Your task to perform on an android device: uninstall "NewsBreak: Local News & Alerts" Image 0: 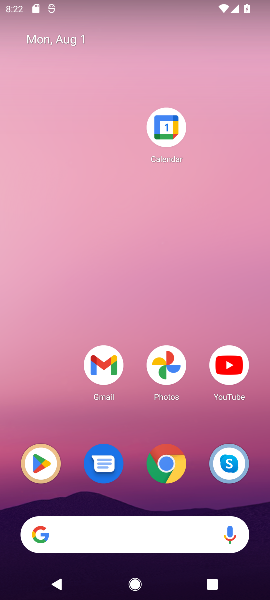
Step 0: drag from (153, 122) to (153, 0)
Your task to perform on an android device: uninstall "NewsBreak: Local News & Alerts" Image 1: 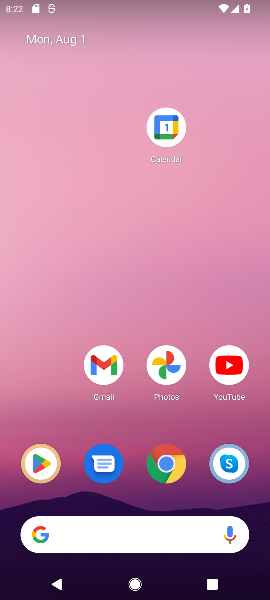
Step 1: drag from (121, 500) to (165, 31)
Your task to perform on an android device: uninstall "NewsBreak: Local News & Alerts" Image 2: 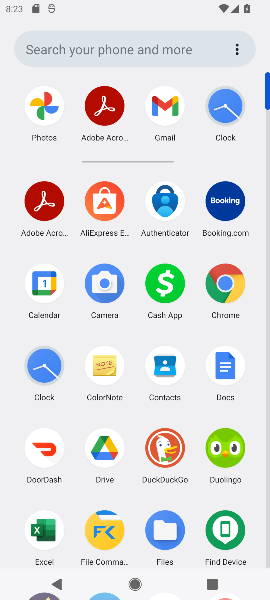
Step 2: click (267, 565)
Your task to perform on an android device: uninstall "NewsBreak: Local News & Alerts" Image 3: 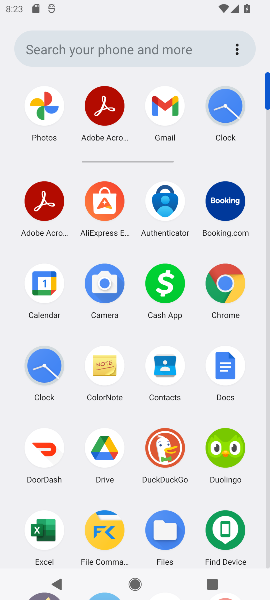
Step 3: click (267, 565)
Your task to perform on an android device: uninstall "NewsBreak: Local News & Alerts" Image 4: 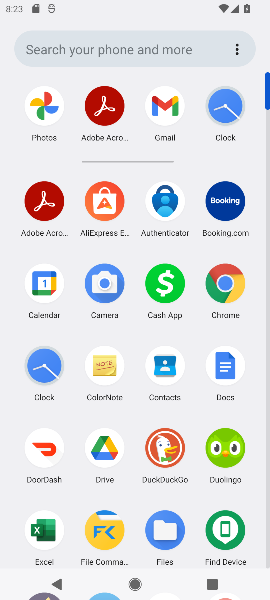
Step 4: click (267, 565)
Your task to perform on an android device: uninstall "NewsBreak: Local News & Alerts" Image 5: 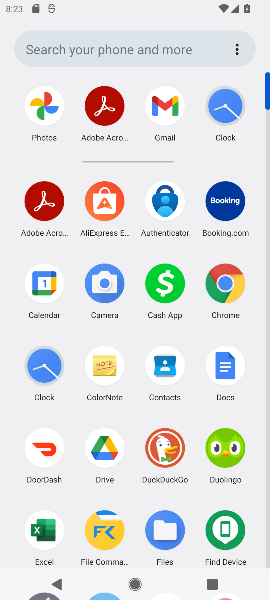
Step 5: drag from (265, 100) to (264, 213)
Your task to perform on an android device: uninstall "NewsBreak: Local News & Alerts" Image 6: 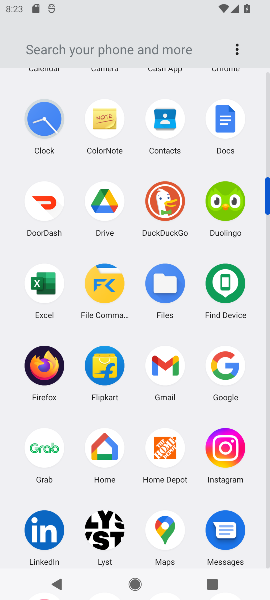
Step 6: drag from (265, 205) to (259, 276)
Your task to perform on an android device: uninstall "NewsBreak: Local News & Alerts" Image 7: 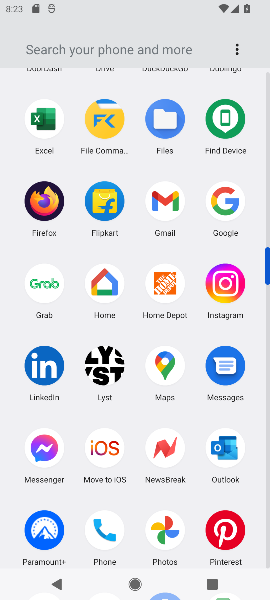
Step 7: click (167, 444)
Your task to perform on an android device: uninstall "NewsBreak: Local News & Alerts" Image 8: 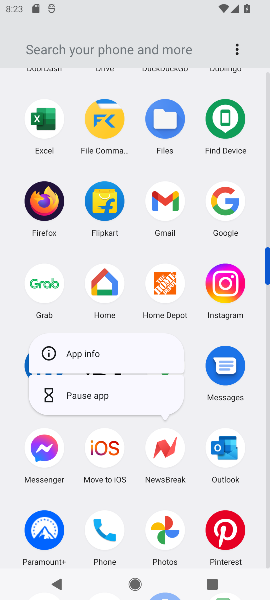
Step 8: click (91, 360)
Your task to perform on an android device: uninstall "NewsBreak: Local News & Alerts" Image 9: 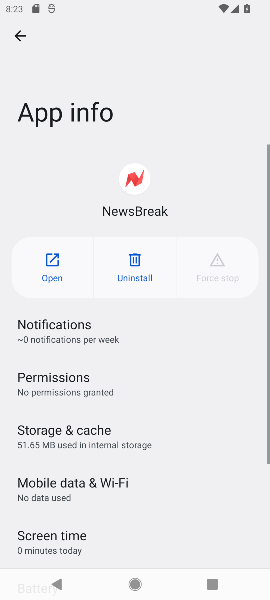
Step 9: click (146, 256)
Your task to perform on an android device: uninstall "NewsBreak: Local News & Alerts" Image 10: 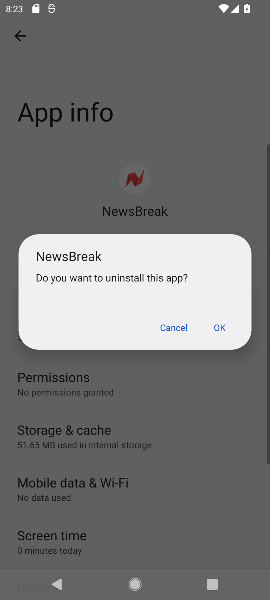
Step 10: task complete